Your task to perform on an android device: Open maps Image 0: 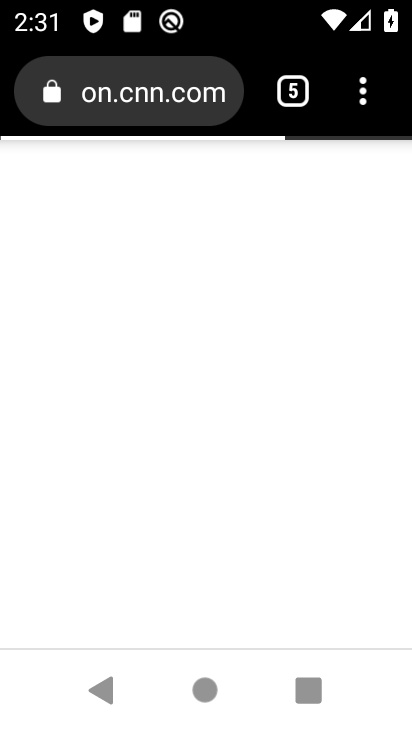
Step 0: press home button
Your task to perform on an android device: Open maps Image 1: 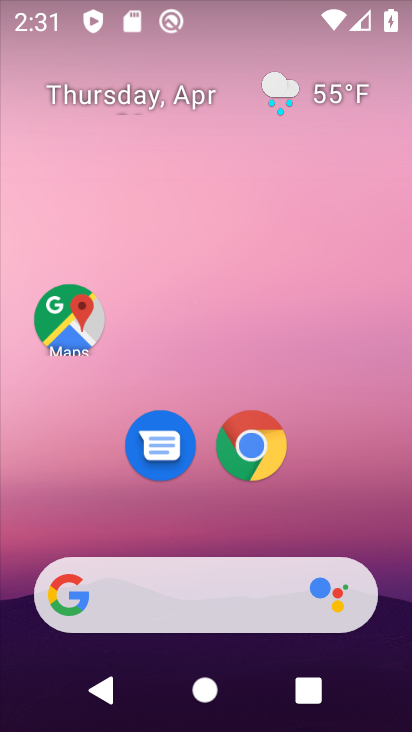
Step 1: drag from (222, 708) to (188, 87)
Your task to perform on an android device: Open maps Image 2: 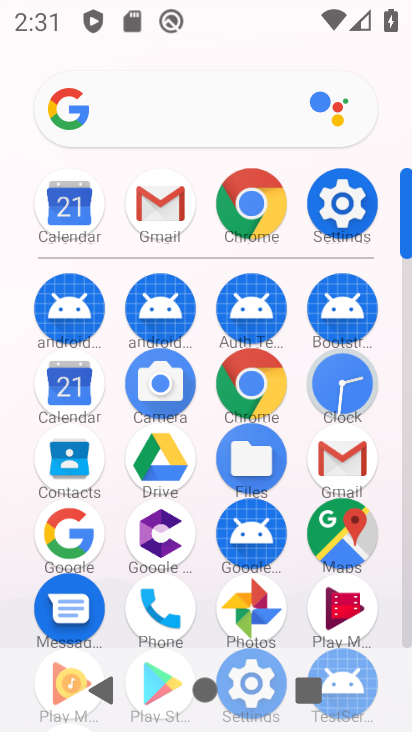
Step 2: drag from (208, 637) to (217, 197)
Your task to perform on an android device: Open maps Image 3: 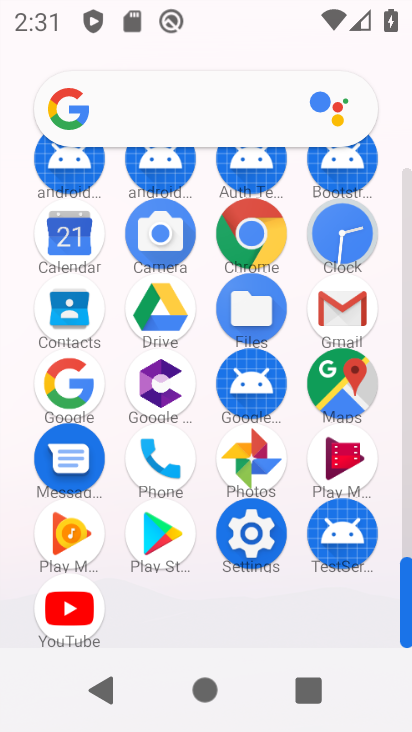
Step 3: click (343, 385)
Your task to perform on an android device: Open maps Image 4: 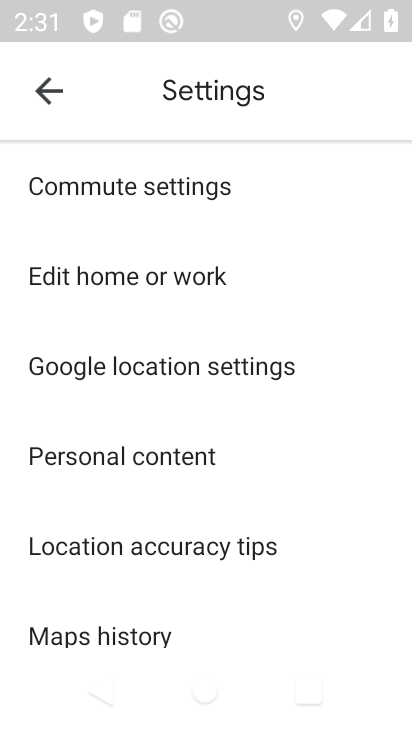
Step 4: click (47, 93)
Your task to perform on an android device: Open maps Image 5: 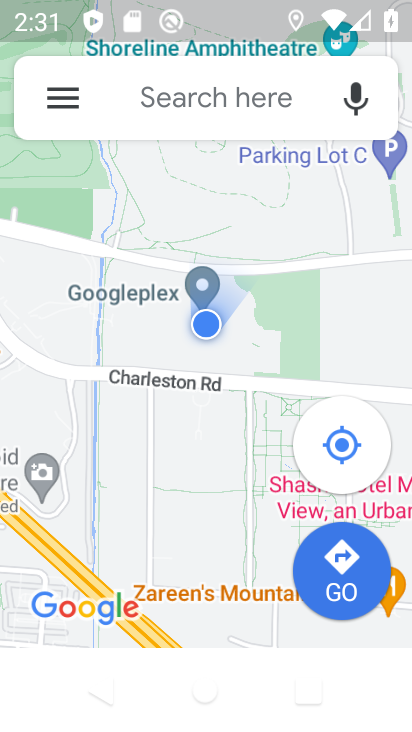
Step 5: task complete